Your task to perform on an android device: What is the recent news? Image 0: 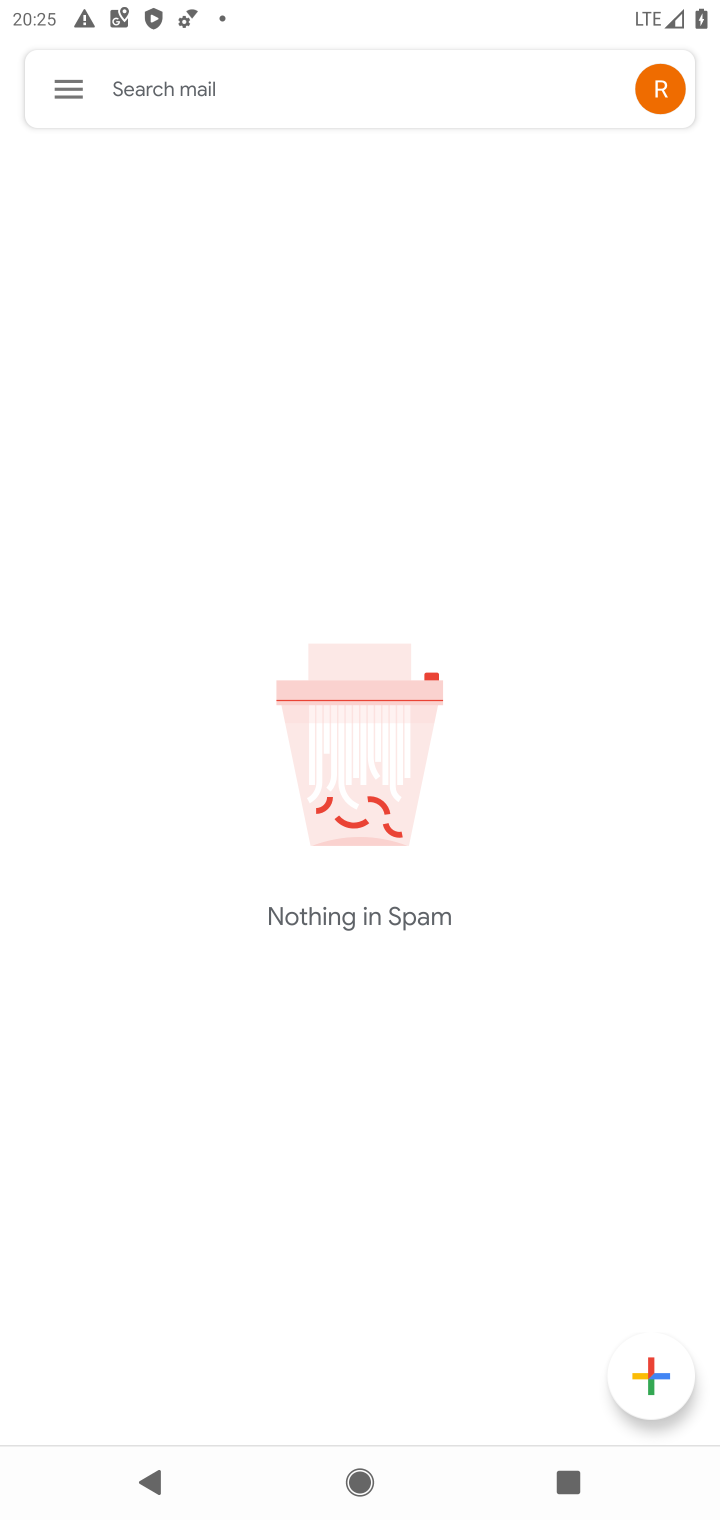
Step 0: press home button
Your task to perform on an android device: What is the recent news? Image 1: 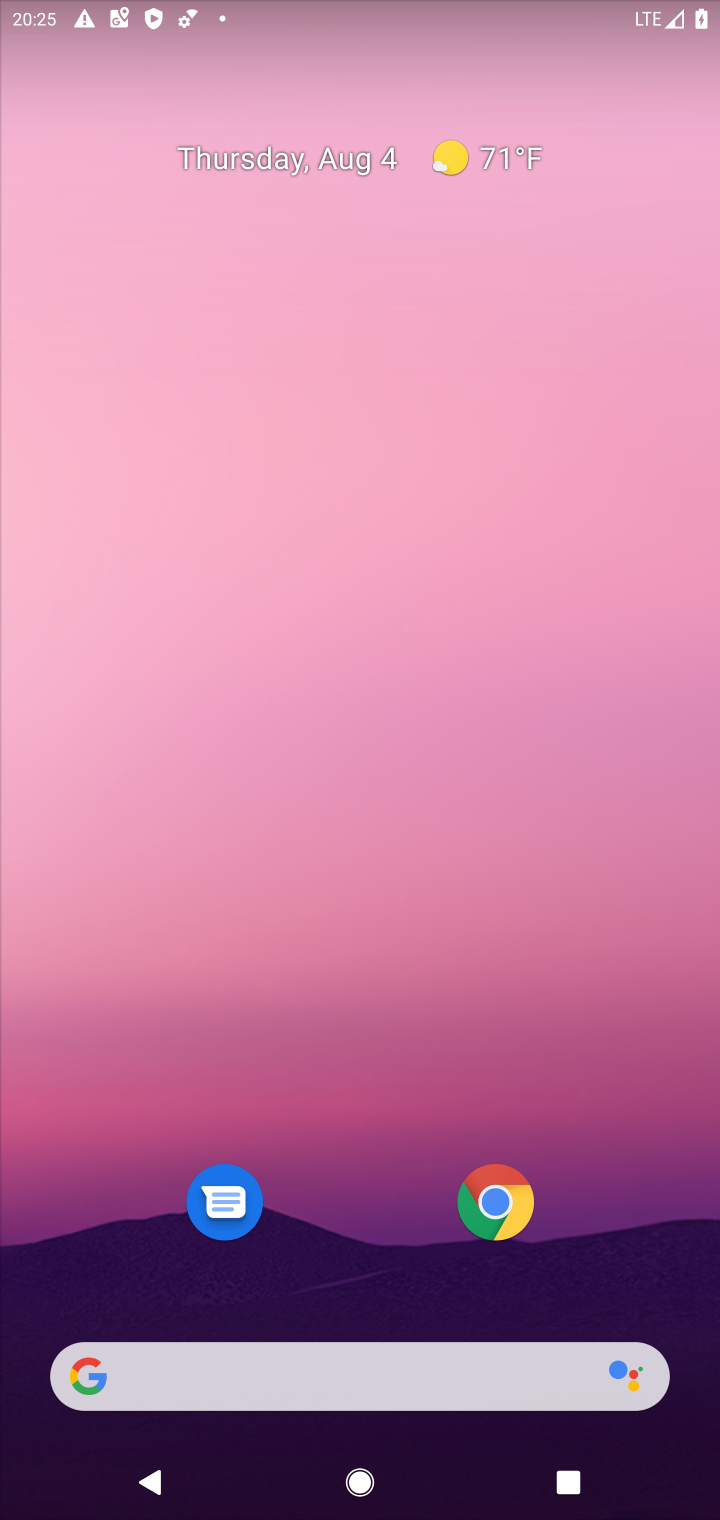
Step 1: drag from (377, 1241) to (394, 473)
Your task to perform on an android device: What is the recent news? Image 2: 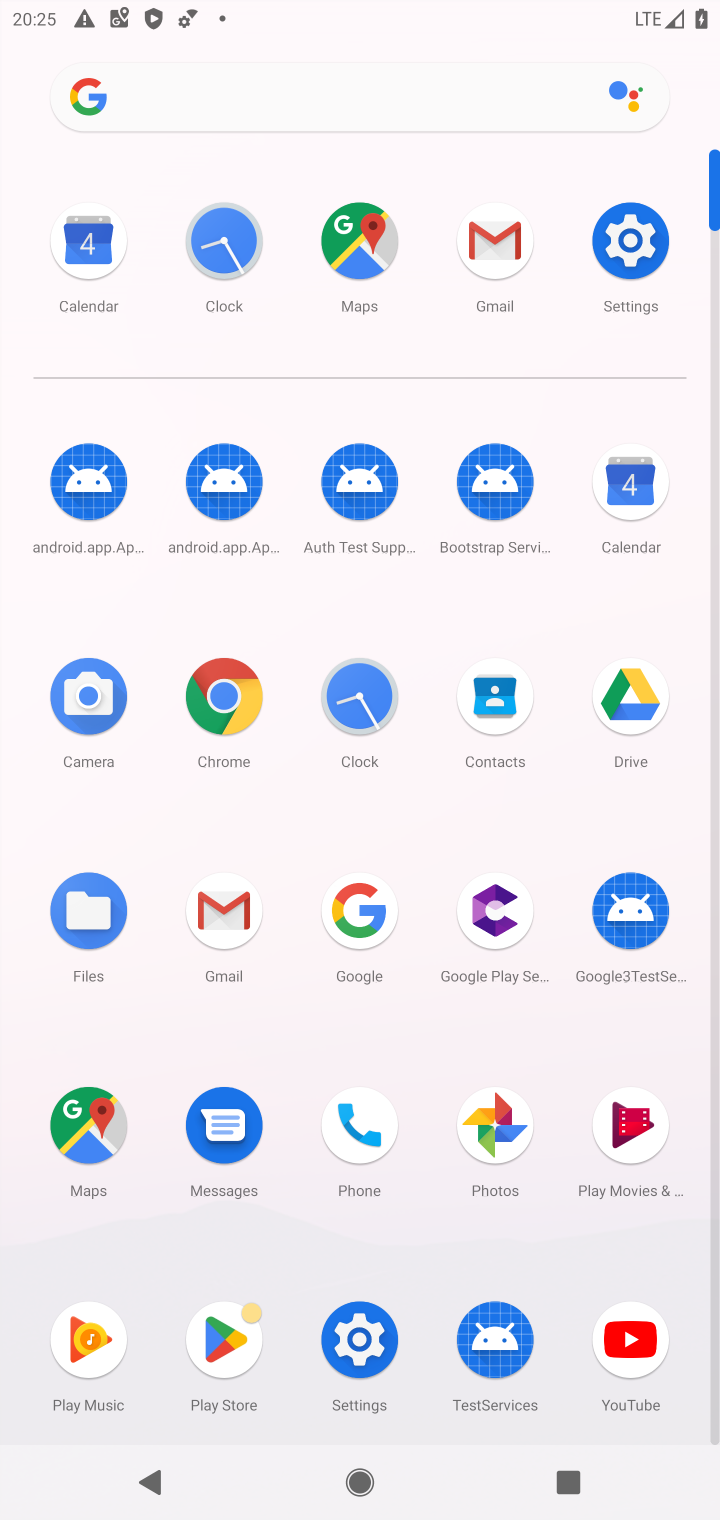
Step 2: click (349, 904)
Your task to perform on an android device: What is the recent news? Image 3: 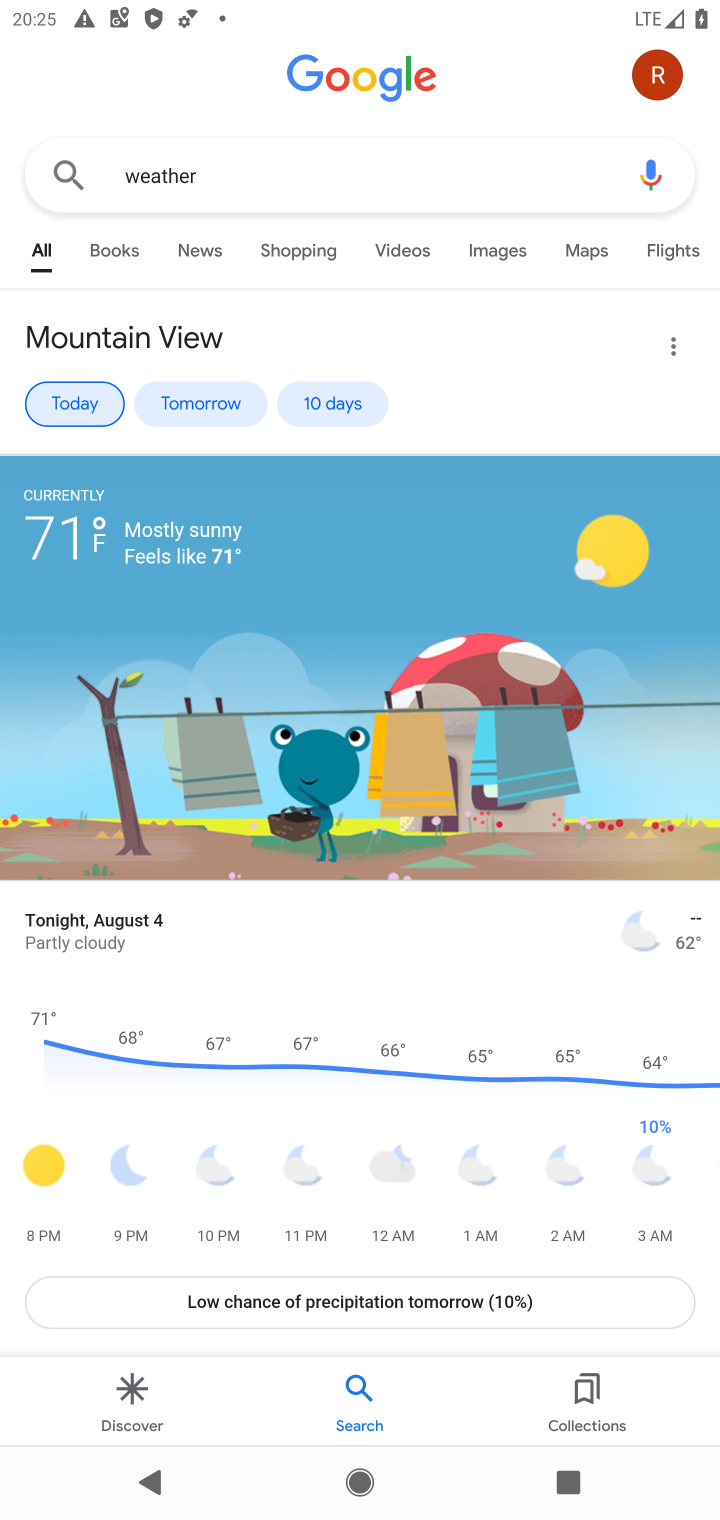
Step 3: click (314, 175)
Your task to perform on an android device: What is the recent news? Image 4: 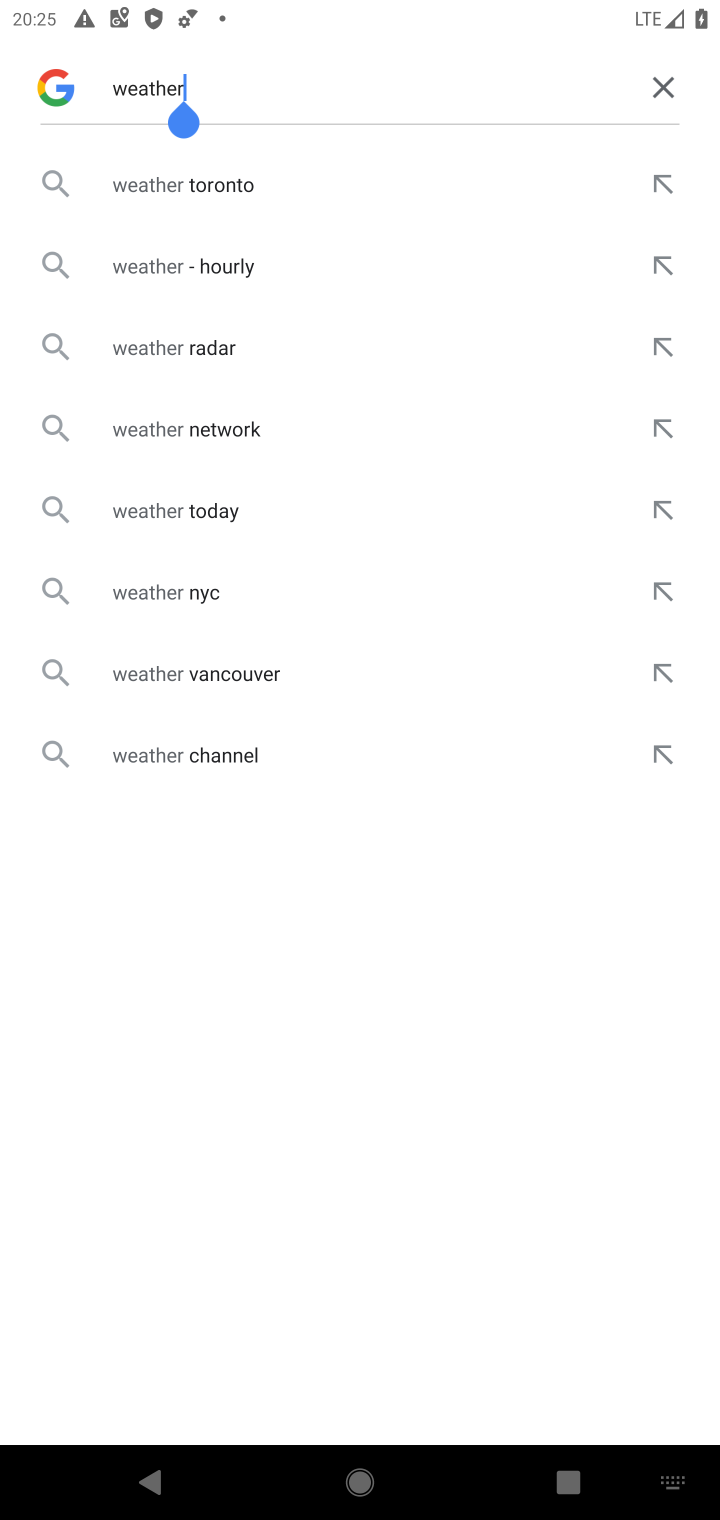
Step 4: click (659, 94)
Your task to perform on an android device: What is the recent news? Image 5: 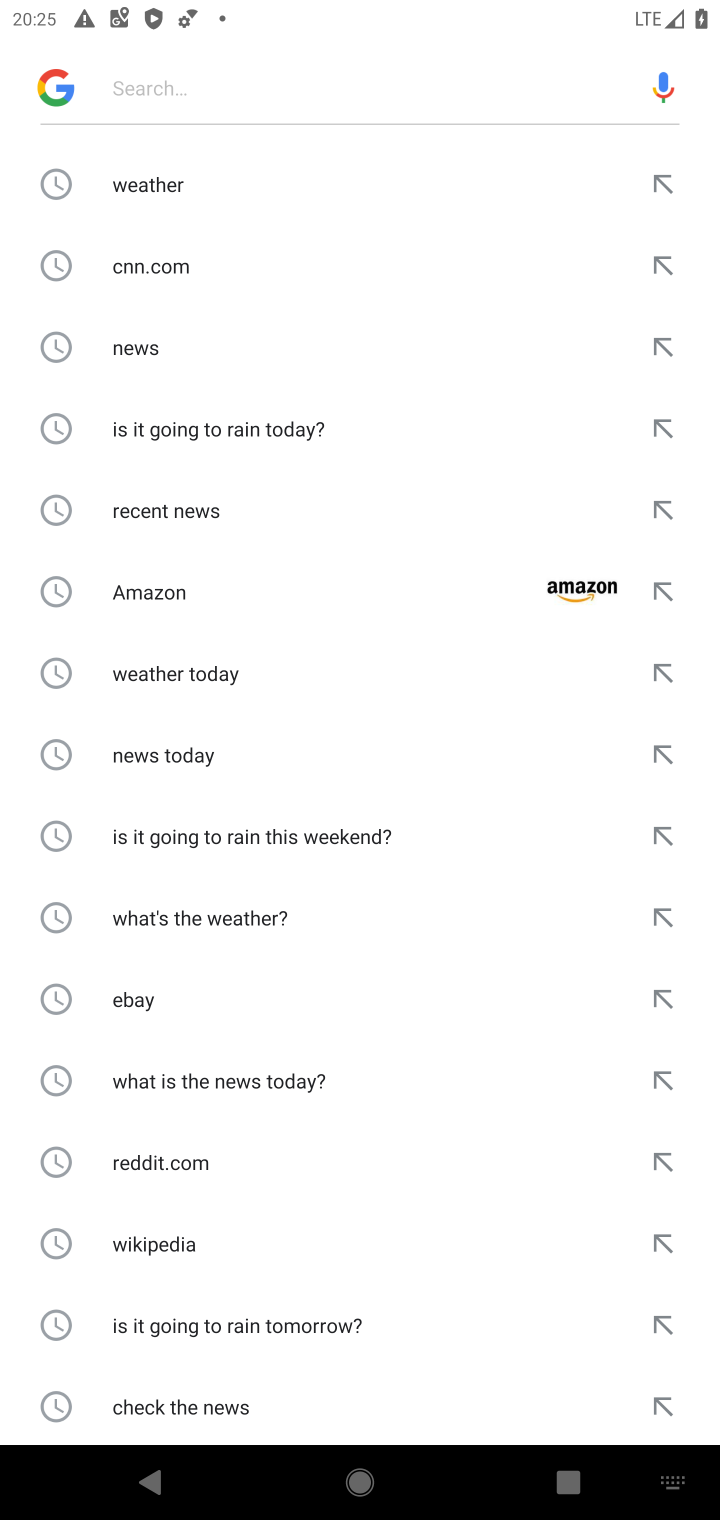
Step 5: click (160, 342)
Your task to perform on an android device: What is the recent news? Image 6: 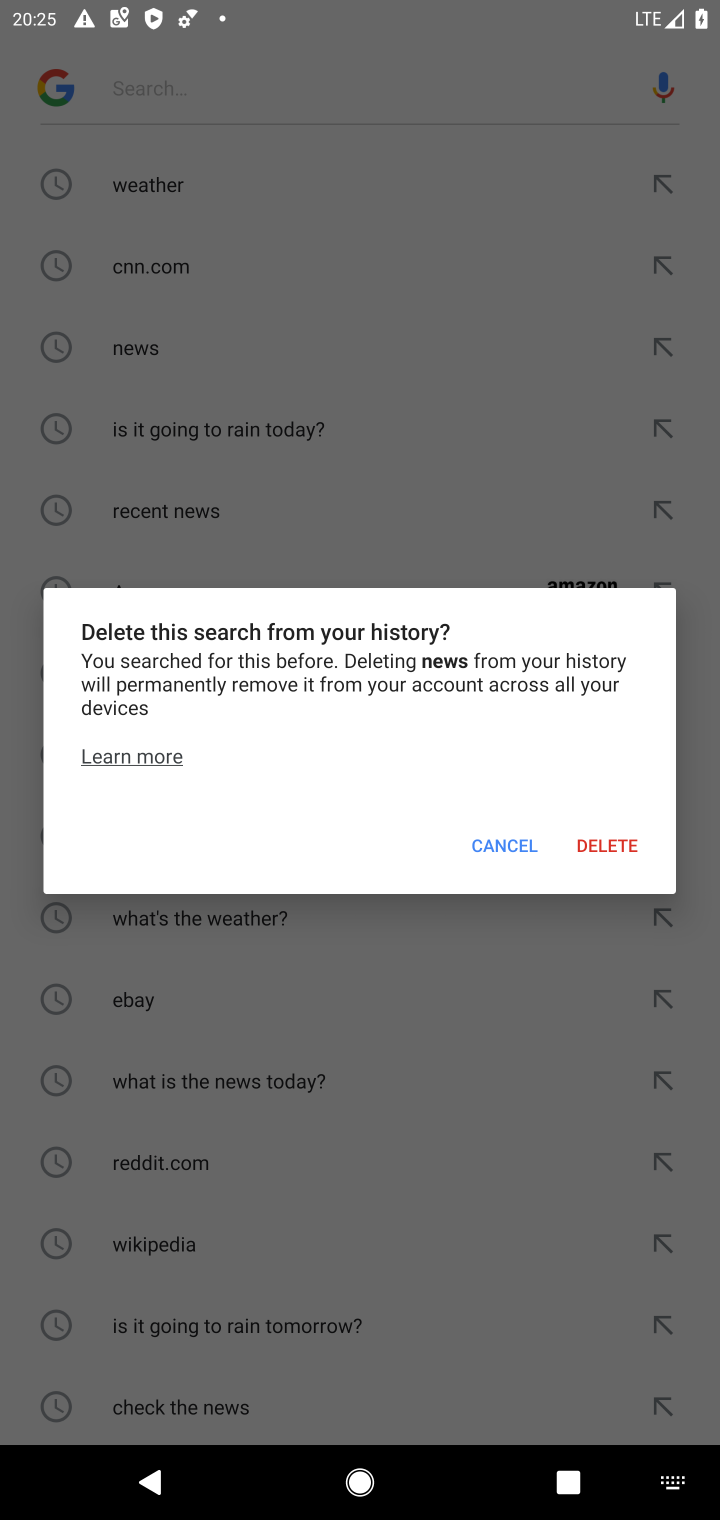
Step 6: click (486, 846)
Your task to perform on an android device: What is the recent news? Image 7: 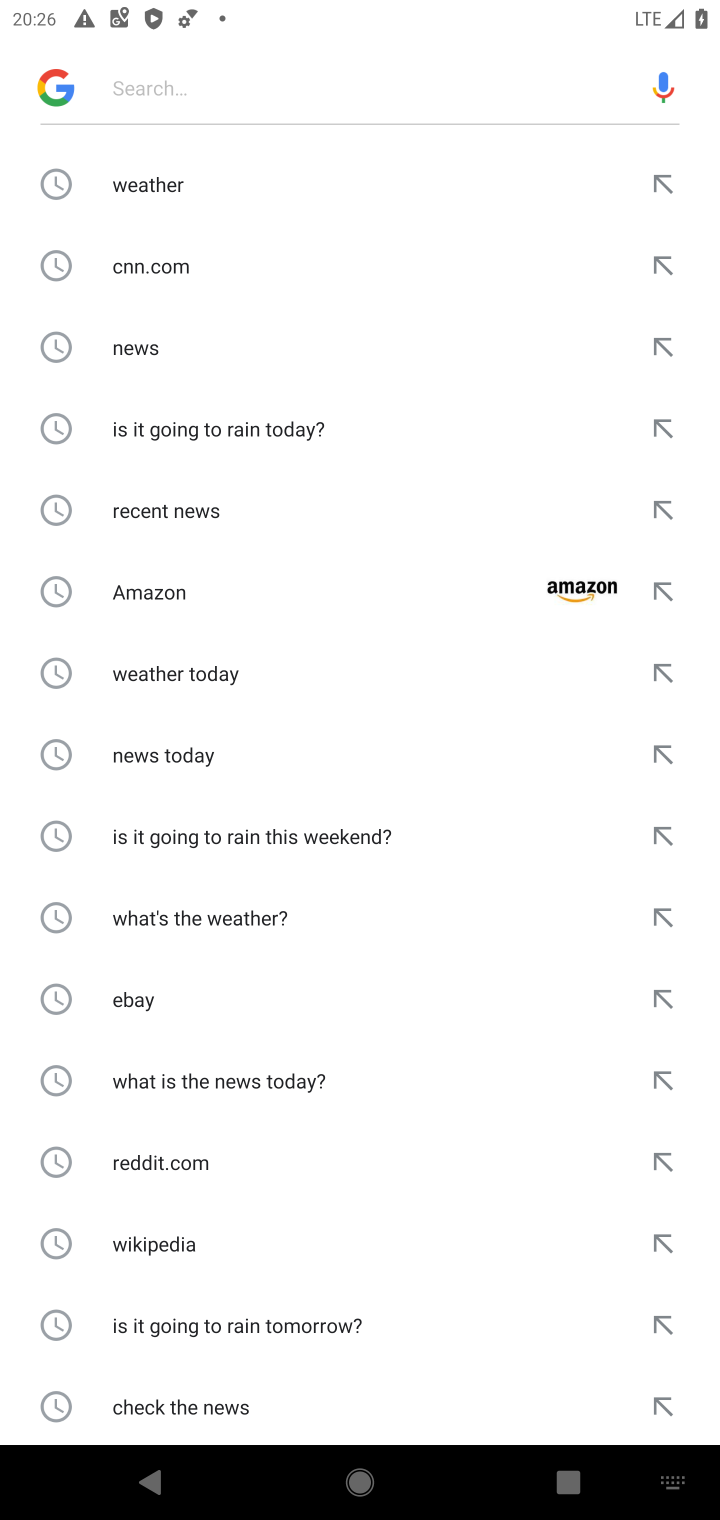
Step 7: click (188, 344)
Your task to perform on an android device: What is the recent news? Image 8: 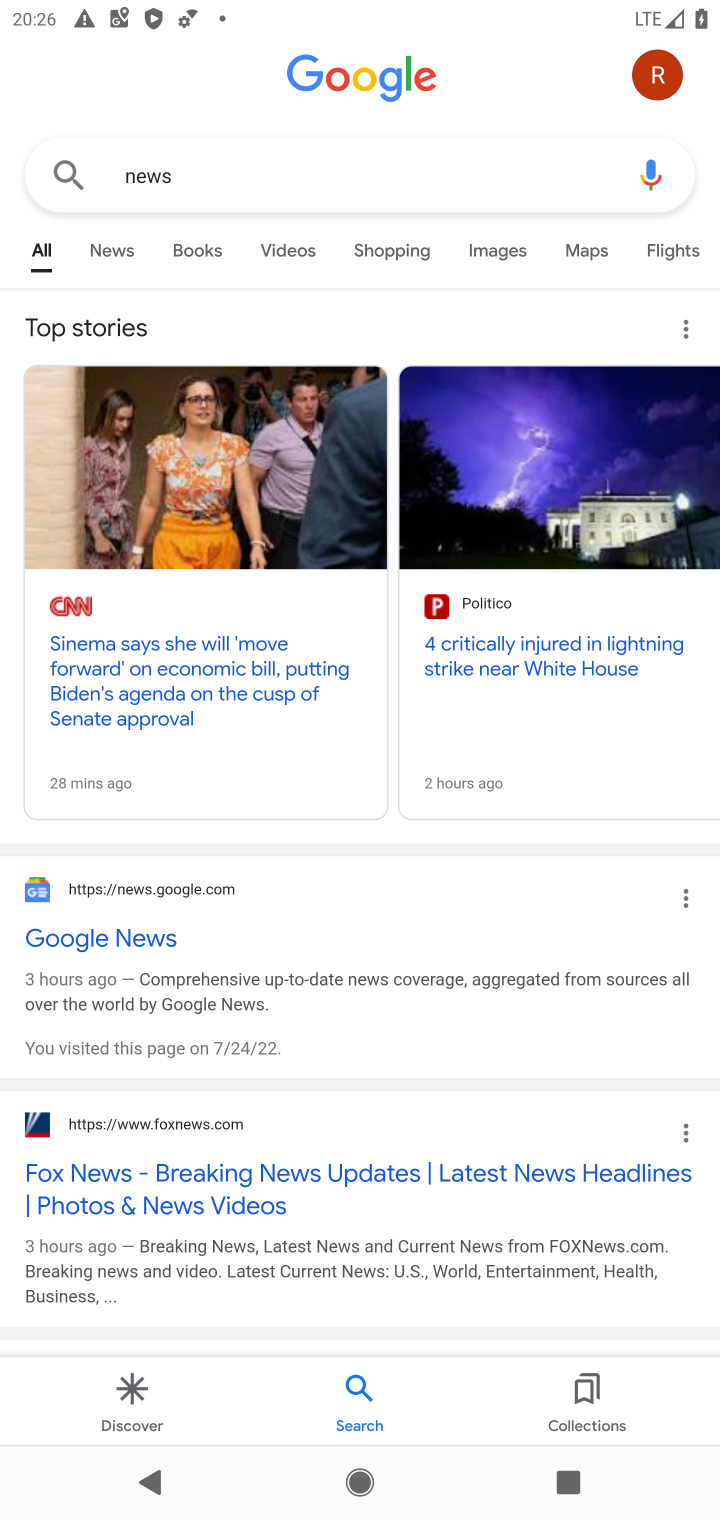
Step 8: click (136, 252)
Your task to perform on an android device: What is the recent news? Image 9: 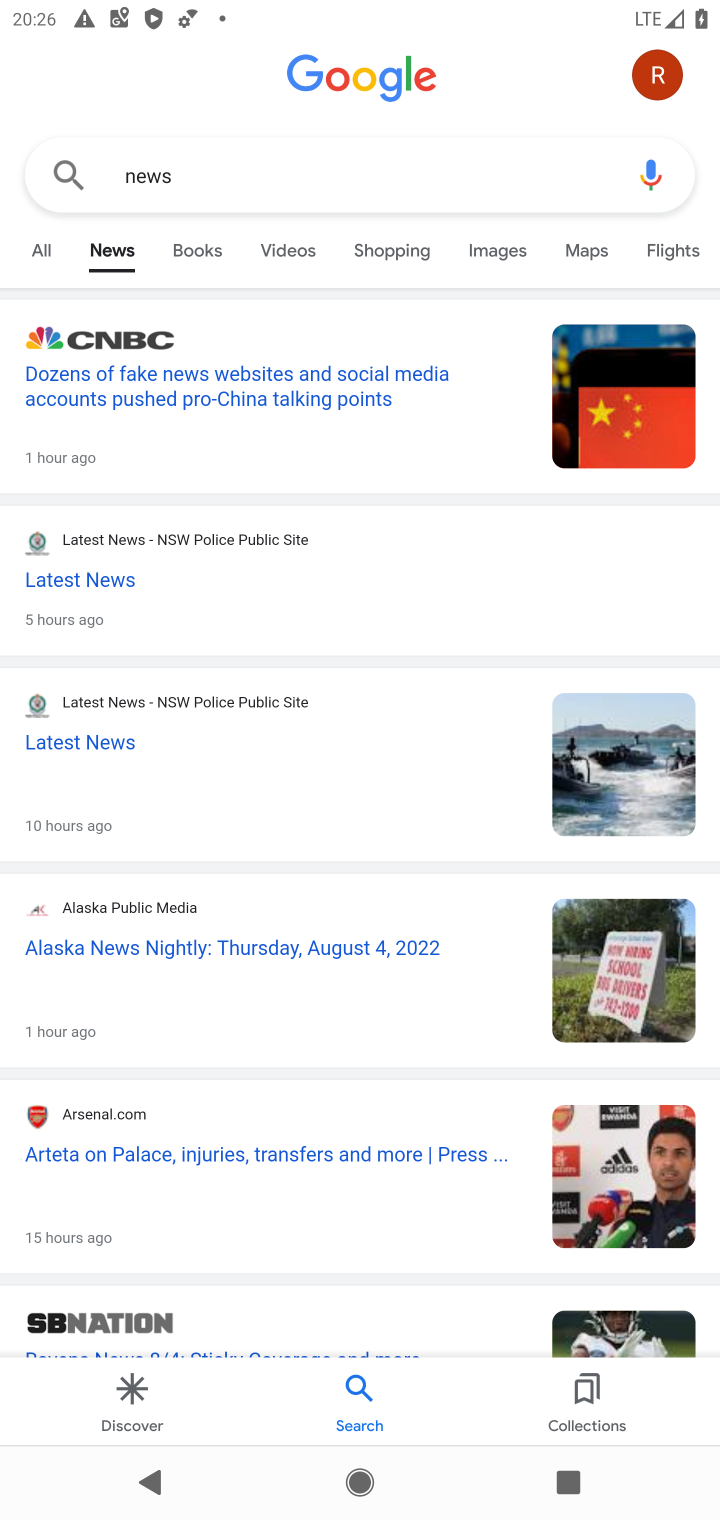
Step 9: task complete